Your task to perform on an android device: Open the calendar app, open the side menu, and click the "Day" option Image 0: 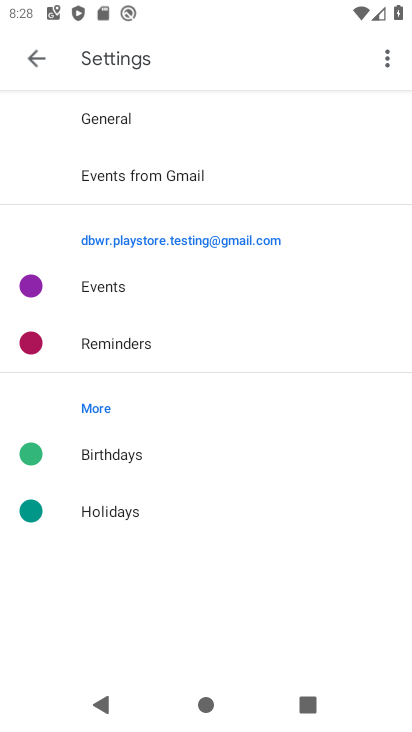
Step 0: press home button
Your task to perform on an android device: Open the calendar app, open the side menu, and click the "Day" option Image 1: 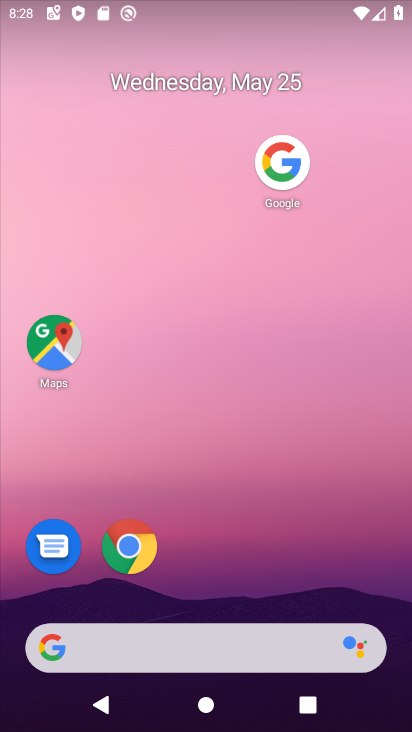
Step 1: drag from (206, 649) to (358, 114)
Your task to perform on an android device: Open the calendar app, open the side menu, and click the "Day" option Image 2: 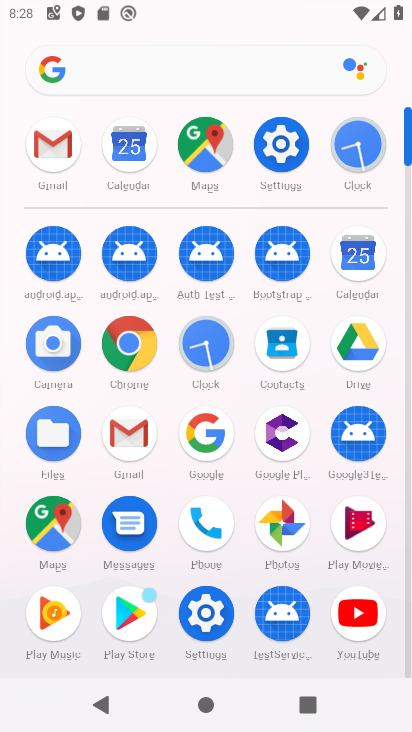
Step 2: click (366, 260)
Your task to perform on an android device: Open the calendar app, open the side menu, and click the "Day" option Image 3: 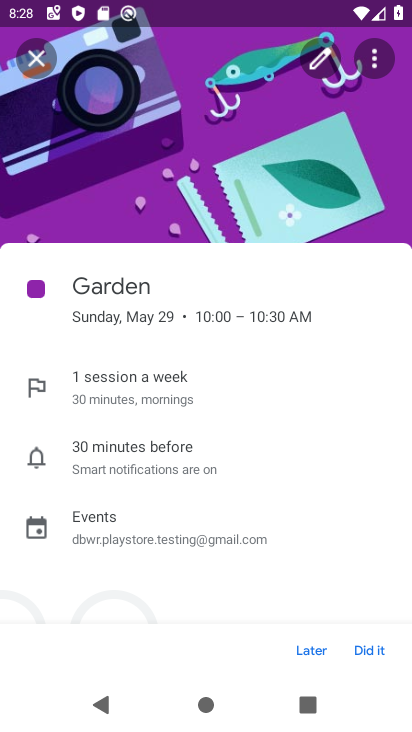
Step 3: click (47, 63)
Your task to perform on an android device: Open the calendar app, open the side menu, and click the "Day" option Image 4: 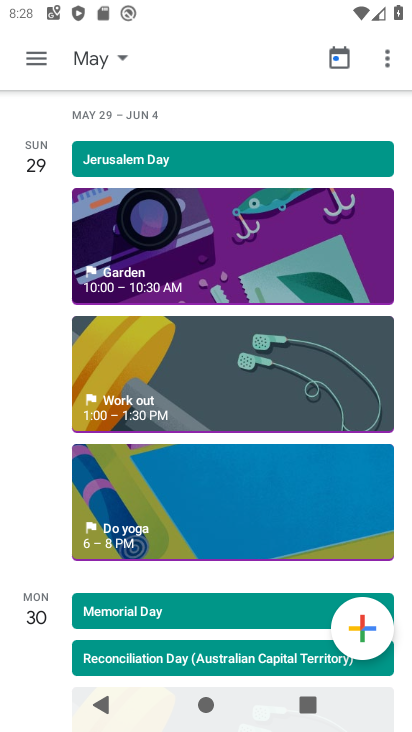
Step 4: click (35, 59)
Your task to perform on an android device: Open the calendar app, open the side menu, and click the "Day" option Image 5: 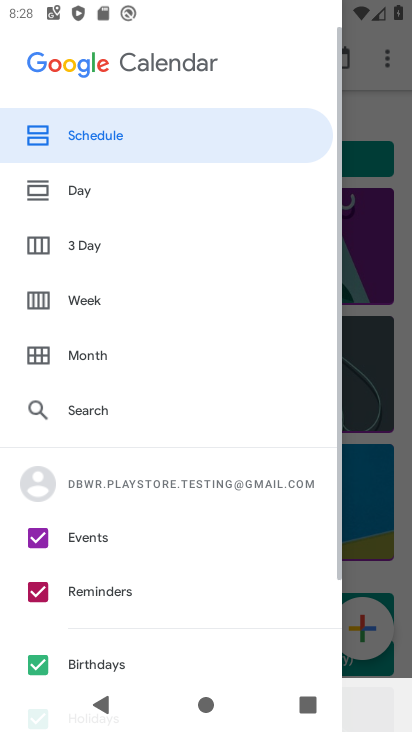
Step 5: click (82, 188)
Your task to perform on an android device: Open the calendar app, open the side menu, and click the "Day" option Image 6: 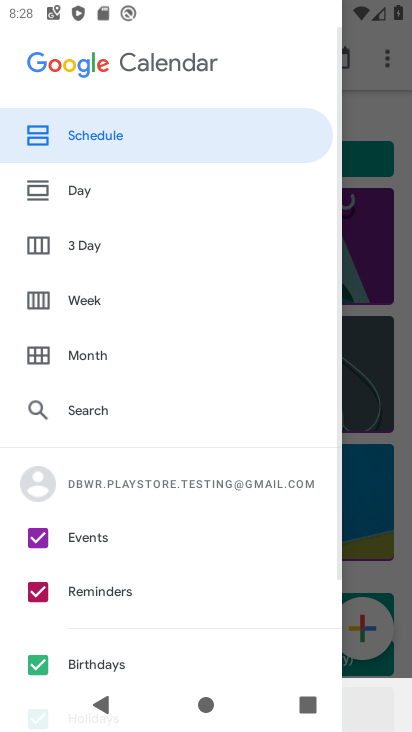
Step 6: click (82, 187)
Your task to perform on an android device: Open the calendar app, open the side menu, and click the "Day" option Image 7: 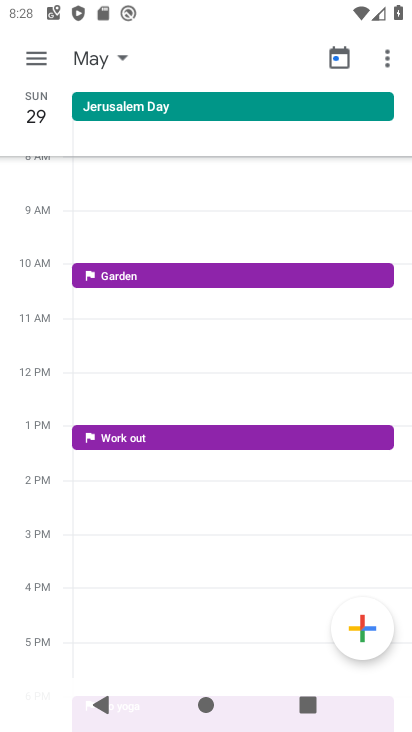
Step 7: task complete